Your task to perform on an android device: move a message to another label in the gmail app Image 0: 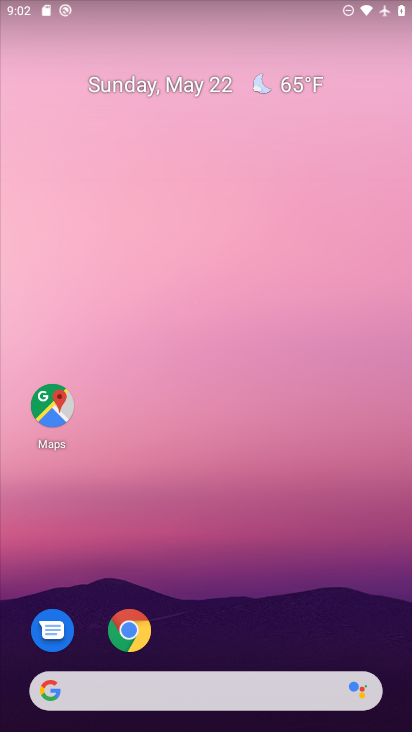
Step 0: press home button
Your task to perform on an android device: move a message to another label in the gmail app Image 1: 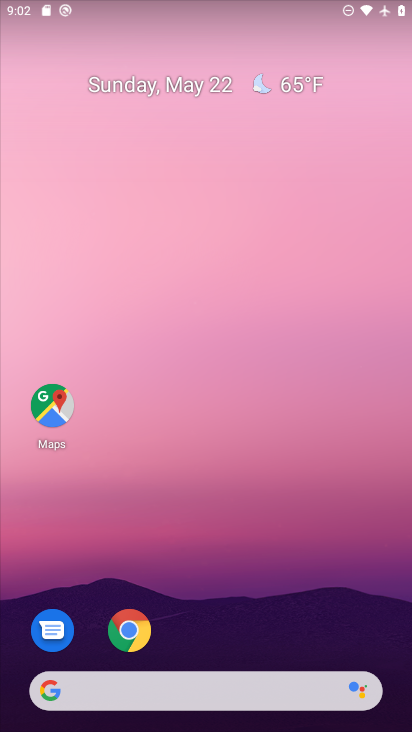
Step 1: drag from (171, 676) to (369, 131)
Your task to perform on an android device: move a message to another label in the gmail app Image 2: 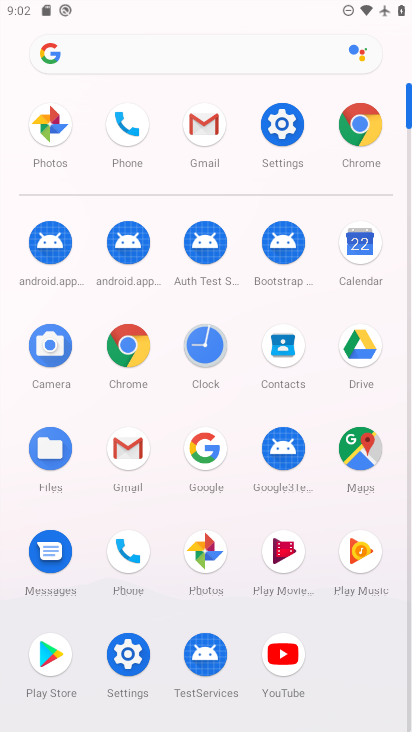
Step 2: click (129, 458)
Your task to perform on an android device: move a message to another label in the gmail app Image 3: 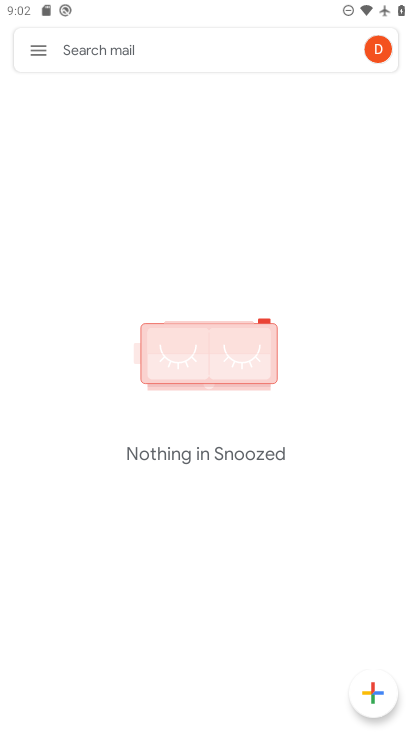
Step 3: click (39, 50)
Your task to perform on an android device: move a message to another label in the gmail app Image 4: 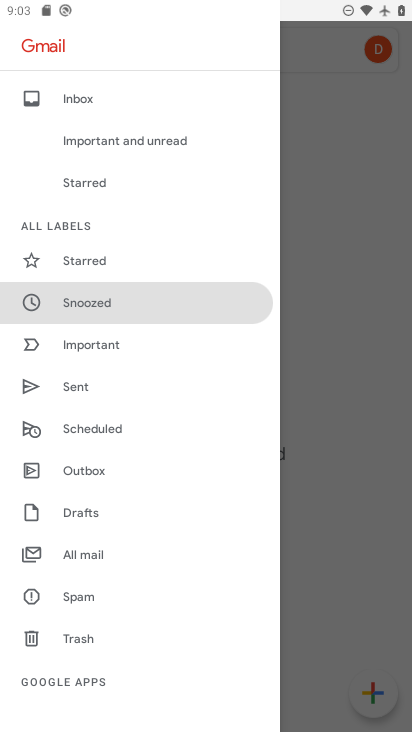
Step 4: click (85, 548)
Your task to perform on an android device: move a message to another label in the gmail app Image 5: 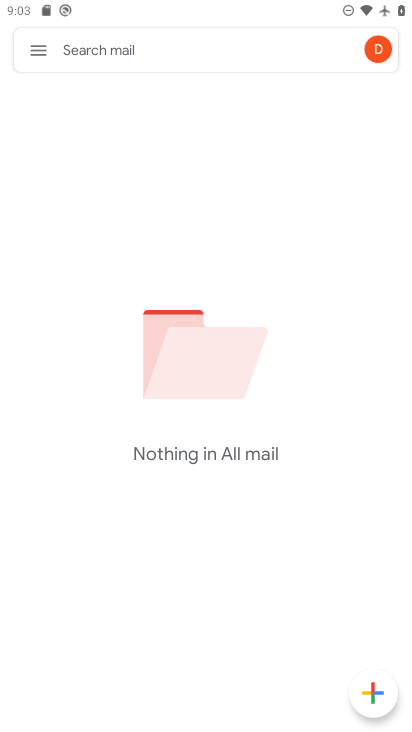
Step 5: task complete